Your task to perform on an android device: What's the weather? Image 0: 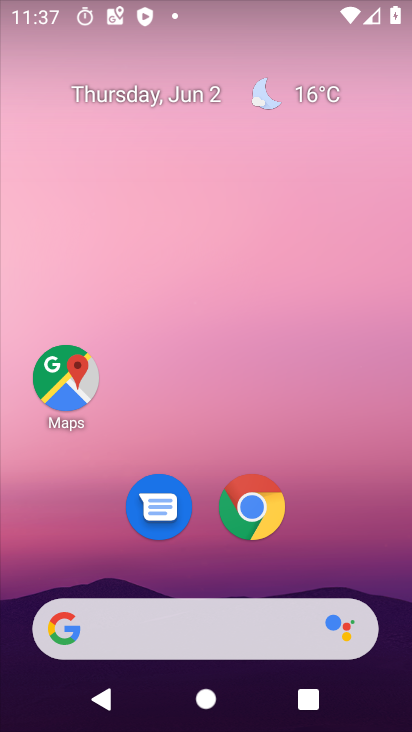
Step 0: drag from (385, 640) to (285, 4)
Your task to perform on an android device: What's the weather? Image 1: 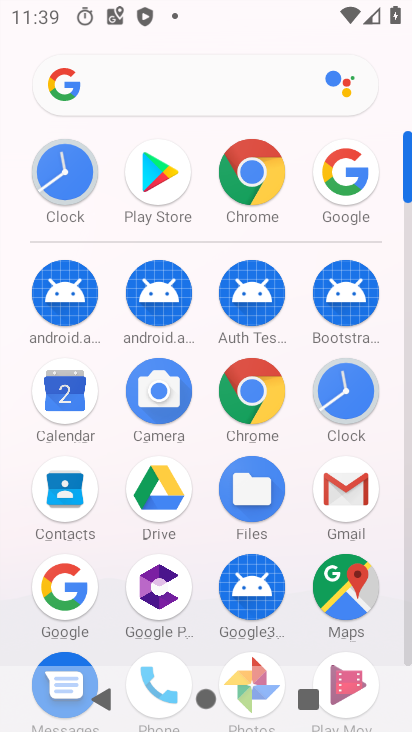
Step 1: click (86, 602)
Your task to perform on an android device: What's the weather? Image 2: 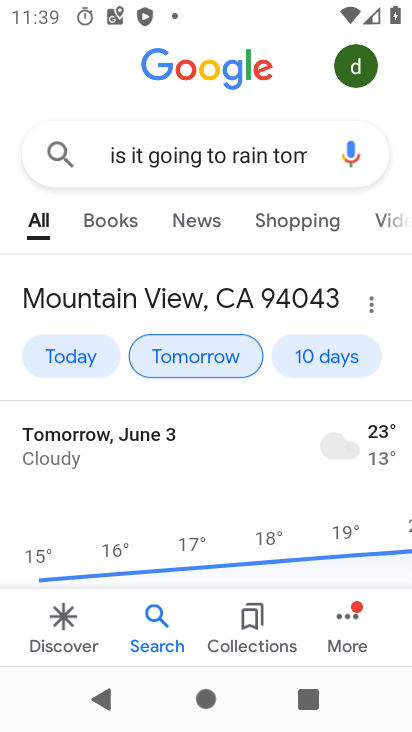
Step 2: press back button
Your task to perform on an android device: What's the weather? Image 3: 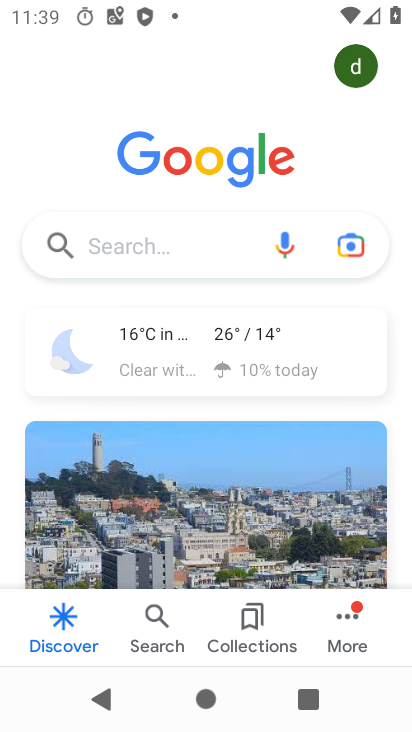
Step 3: click (135, 248)
Your task to perform on an android device: What's the weather? Image 4: 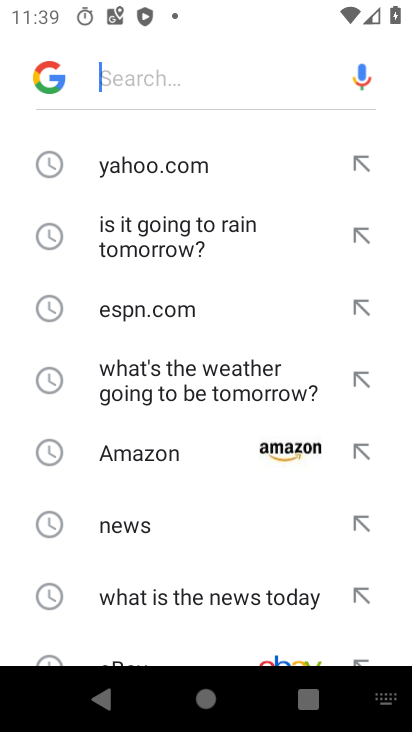
Step 4: drag from (164, 551) to (237, 143)
Your task to perform on an android device: What's the weather? Image 5: 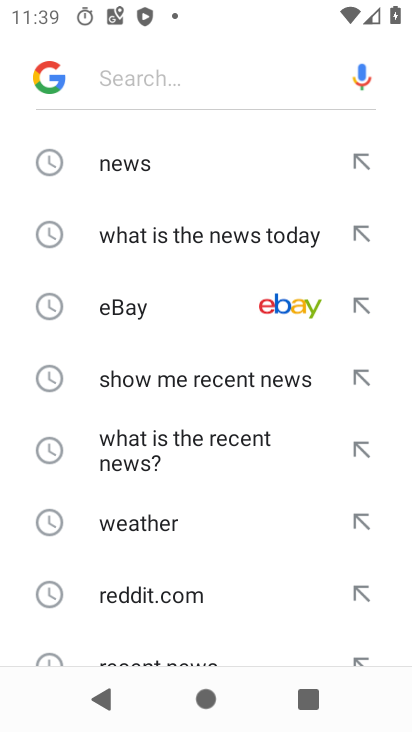
Step 5: click (196, 514)
Your task to perform on an android device: What's the weather? Image 6: 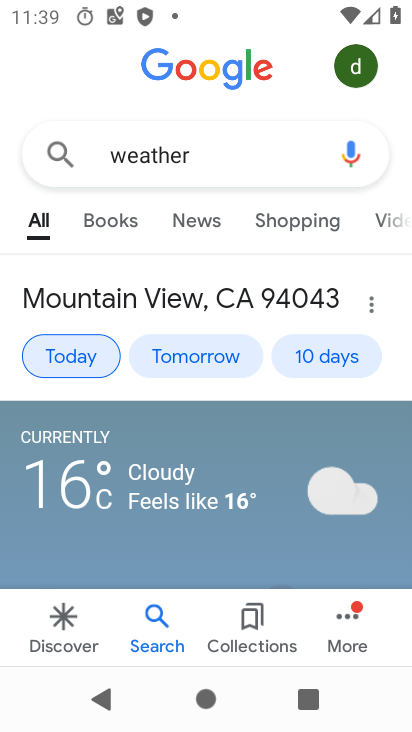
Step 6: task complete